Your task to perform on an android device: Find coffee shops on Maps Image 0: 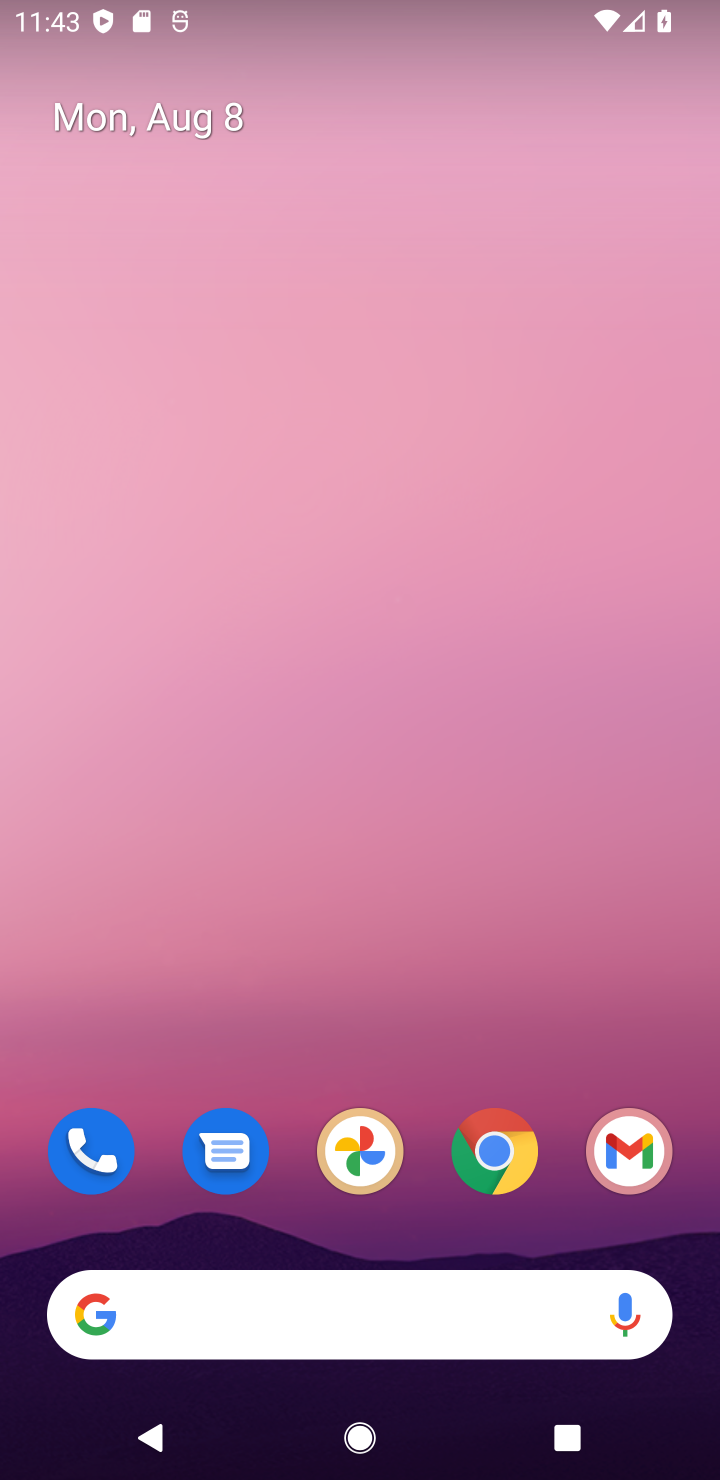
Step 0: drag from (262, 942) to (152, 331)
Your task to perform on an android device: Find coffee shops on Maps Image 1: 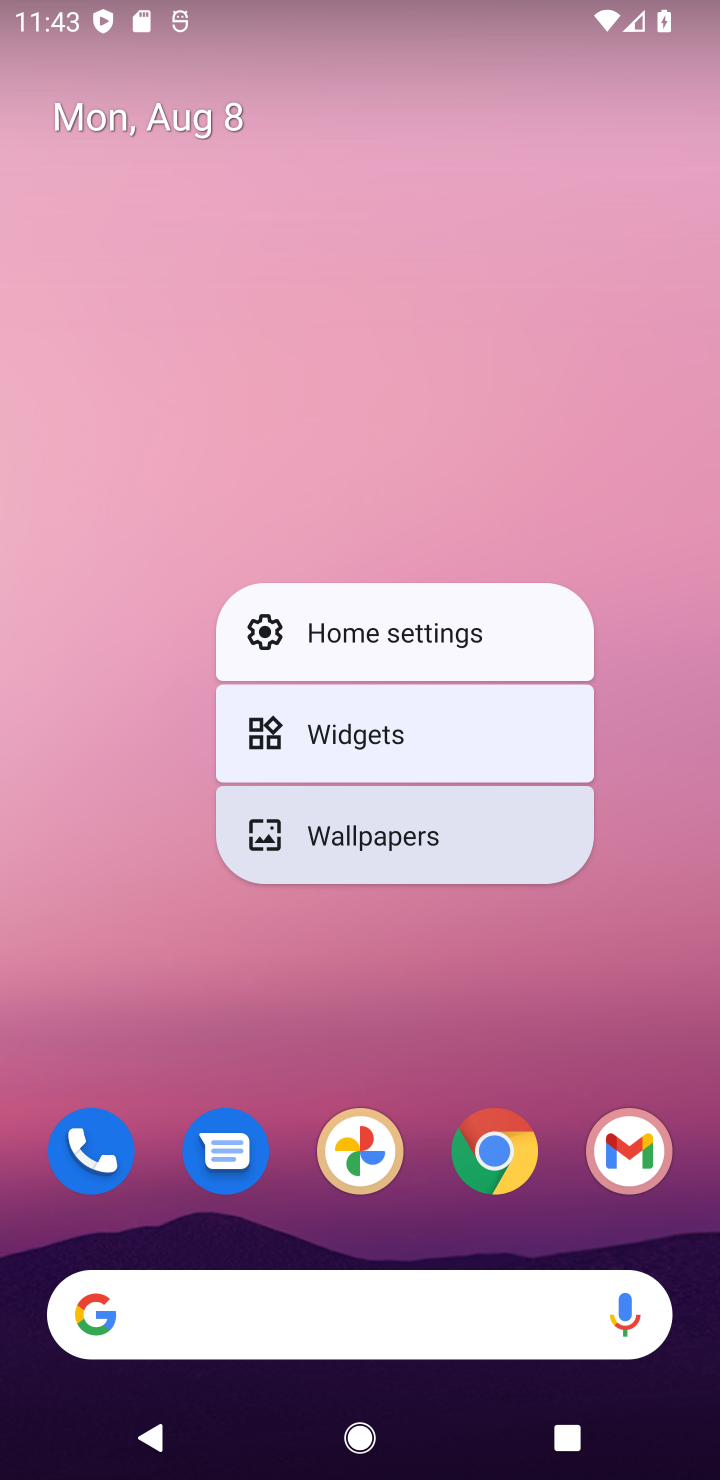
Step 1: drag from (356, 906) to (268, 340)
Your task to perform on an android device: Find coffee shops on Maps Image 2: 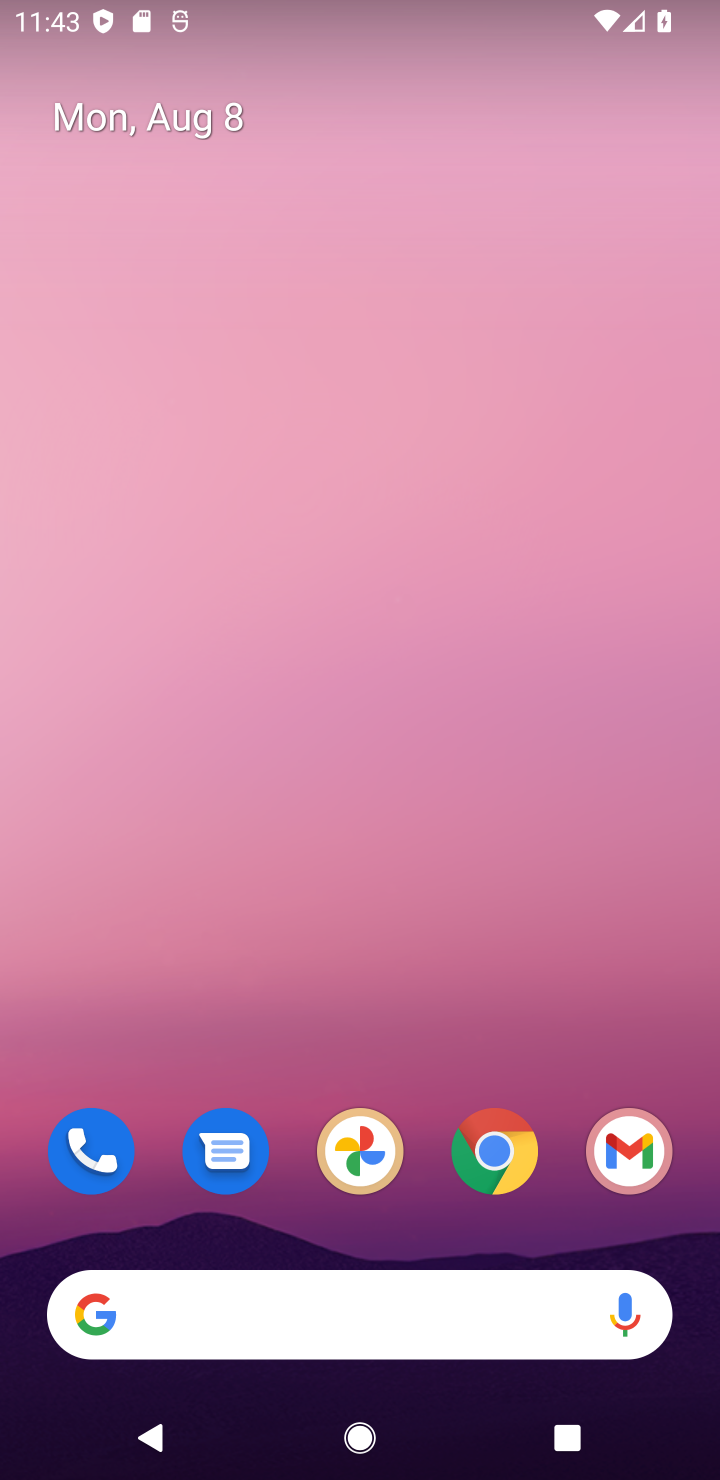
Step 2: drag from (303, 1041) to (86, 350)
Your task to perform on an android device: Find coffee shops on Maps Image 3: 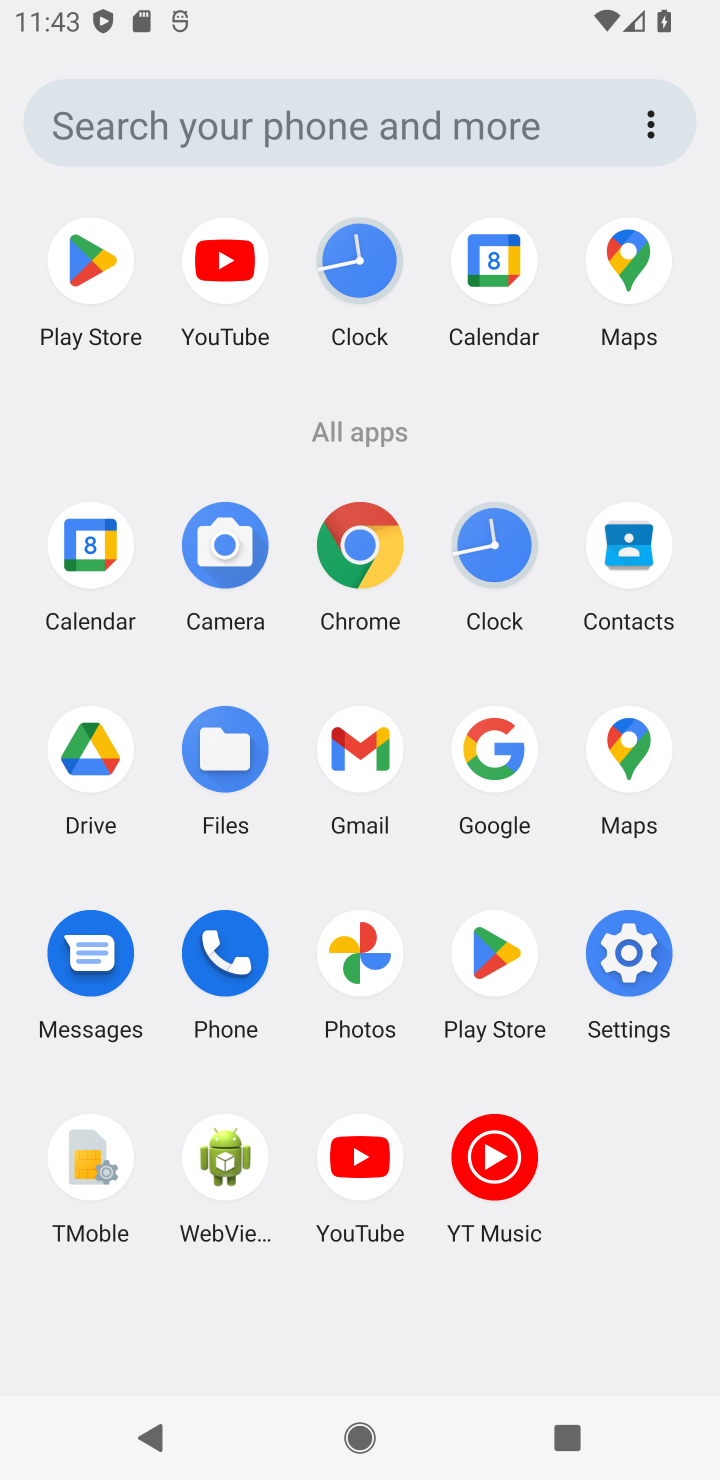
Step 3: click (622, 751)
Your task to perform on an android device: Find coffee shops on Maps Image 4: 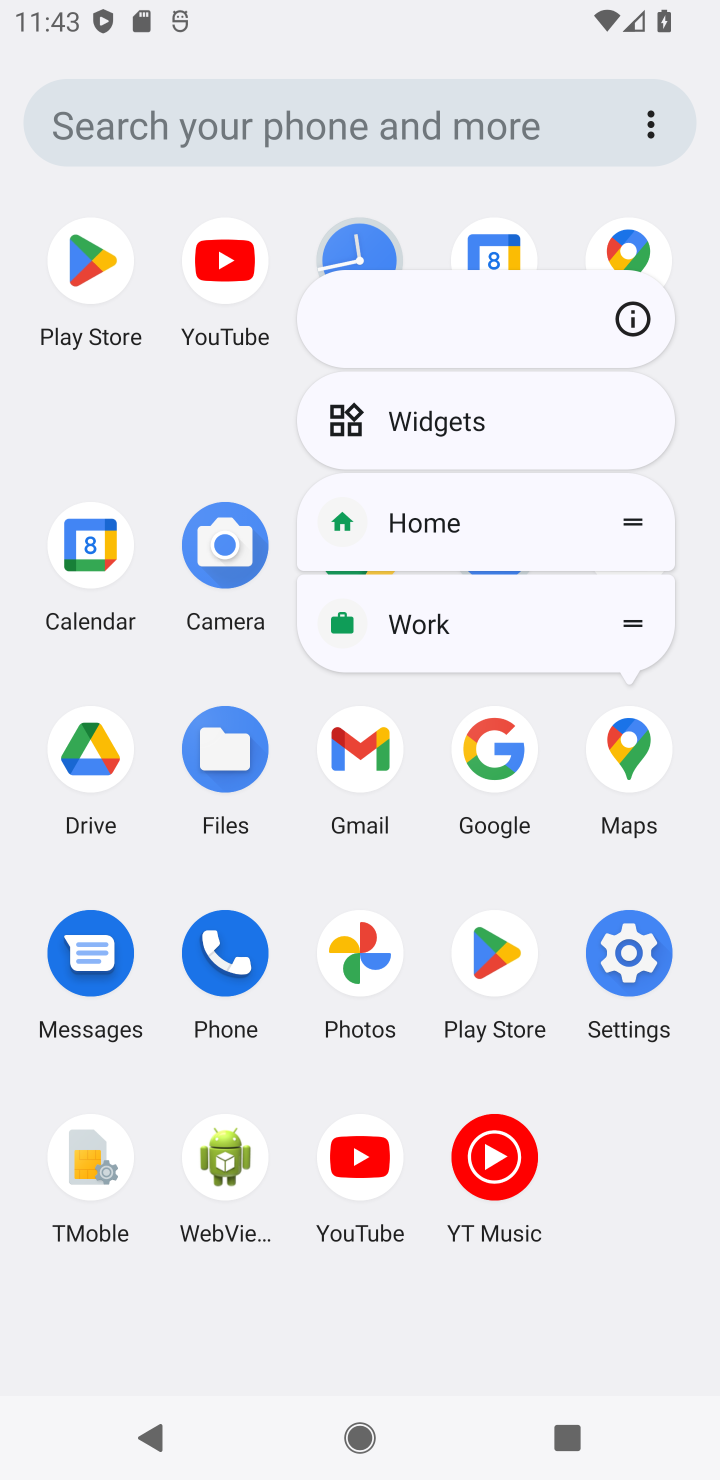
Step 4: click (615, 756)
Your task to perform on an android device: Find coffee shops on Maps Image 5: 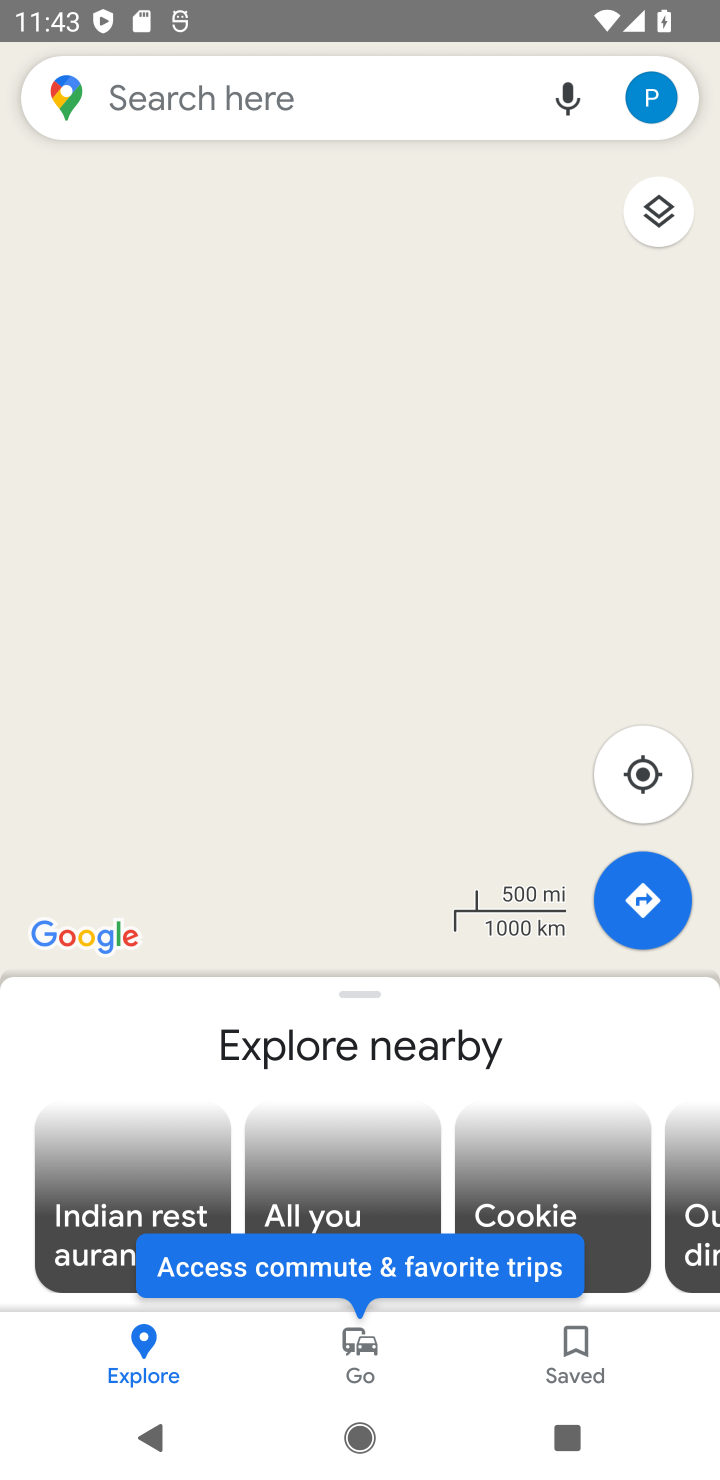
Step 5: click (199, 102)
Your task to perform on an android device: Find coffee shops on Maps Image 6: 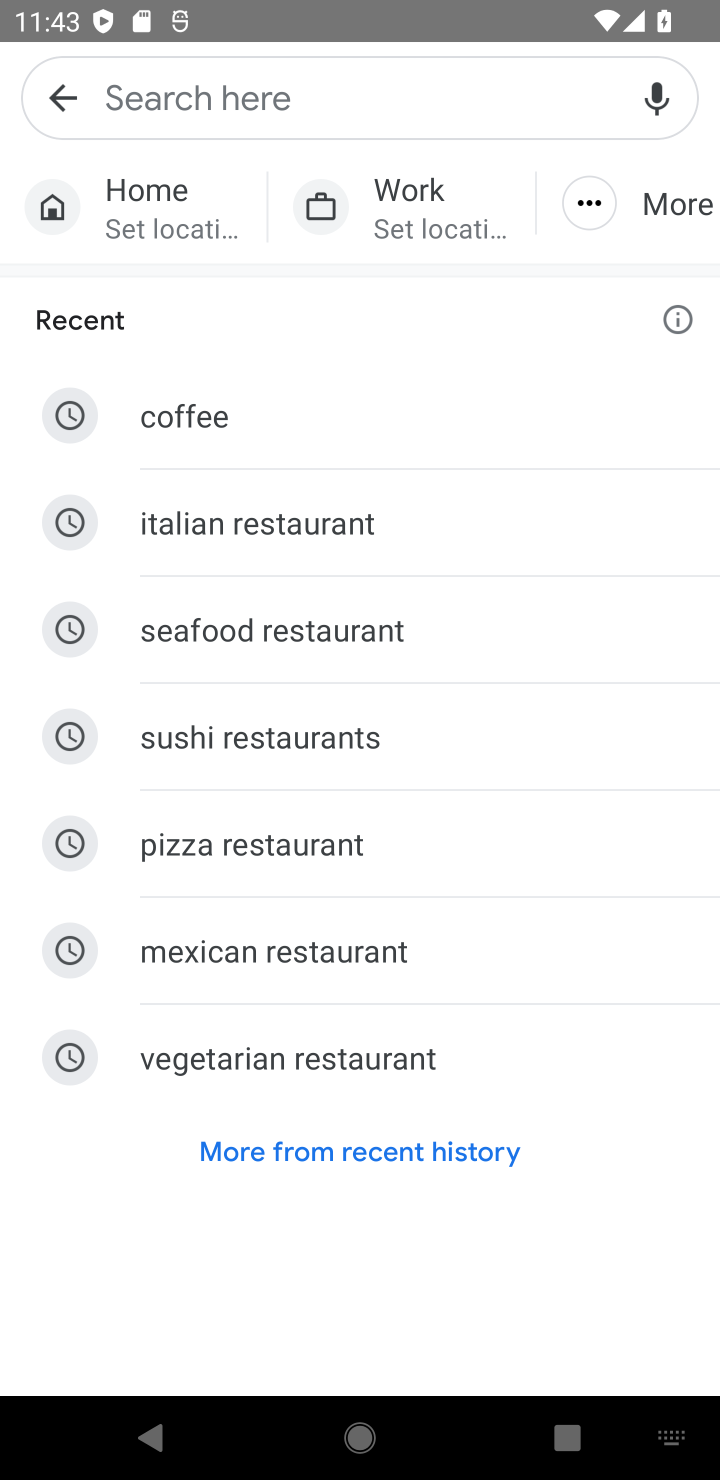
Step 6: click (207, 400)
Your task to perform on an android device: Find coffee shops on Maps Image 7: 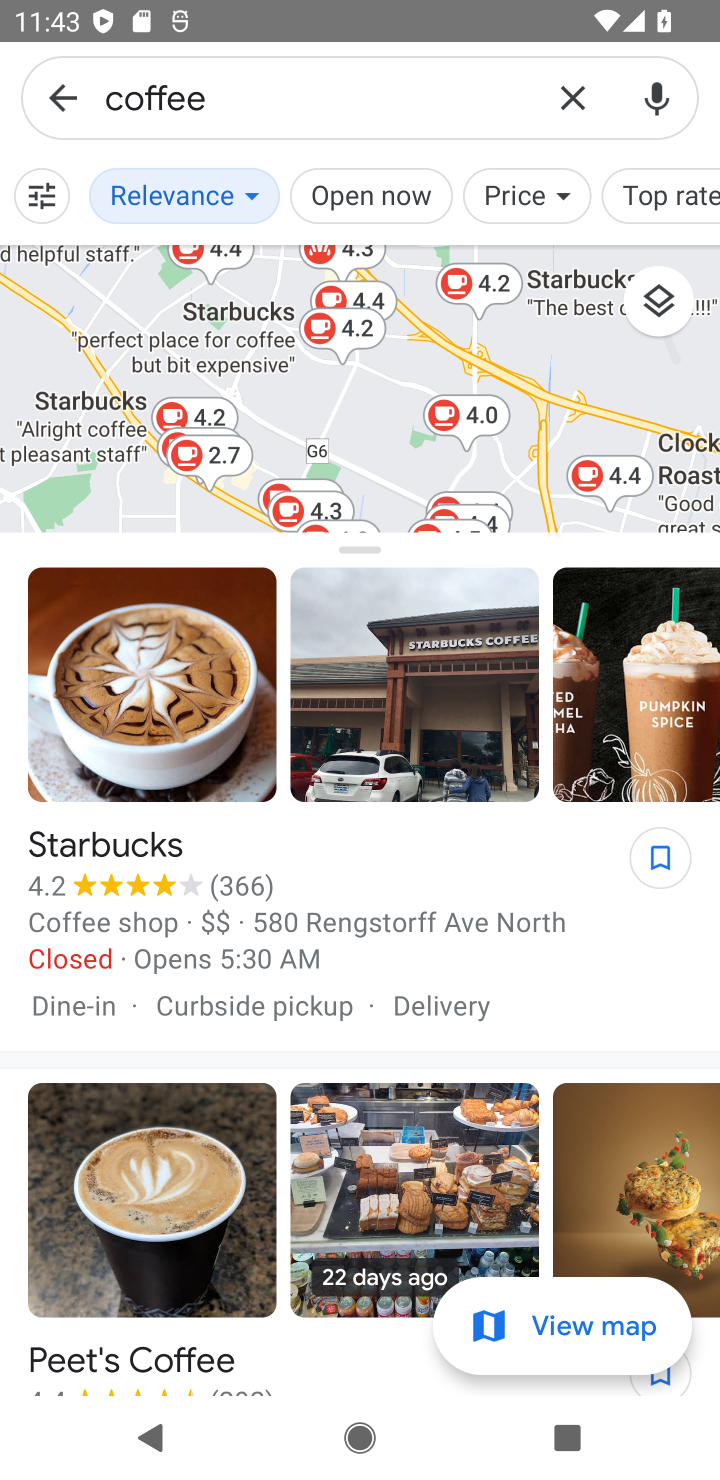
Step 7: task complete